Your task to perform on an android device: open sync settings in chrome Image 0: 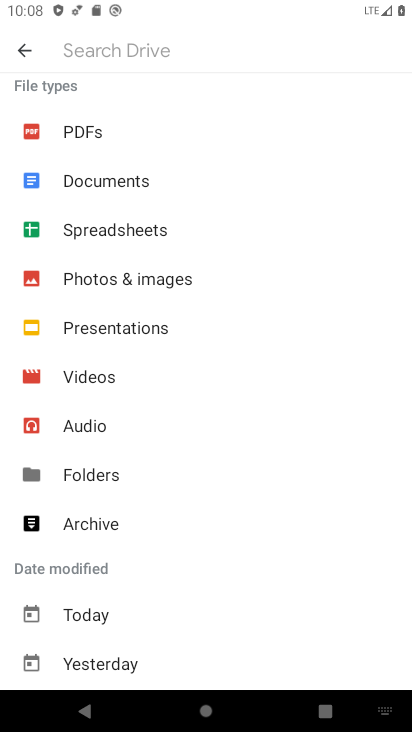
Step 0: press home button
Your task to perform on an android device: open sync settings in chrome Image 1: 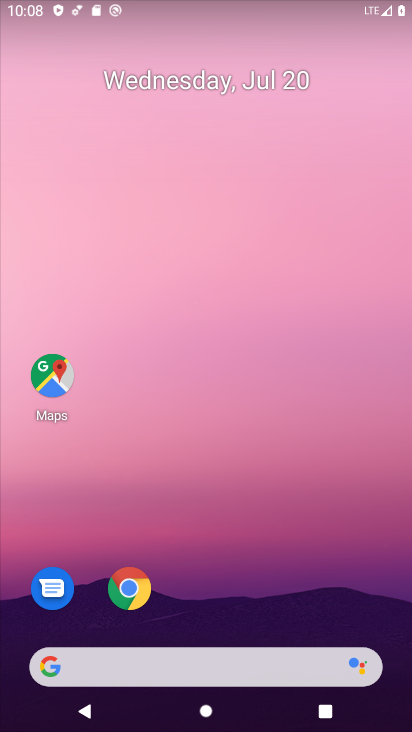
Step 1: drag from (219, 621) to (229, 0)
Your task to perform on an android device: open sync settings in chrome Image 2: 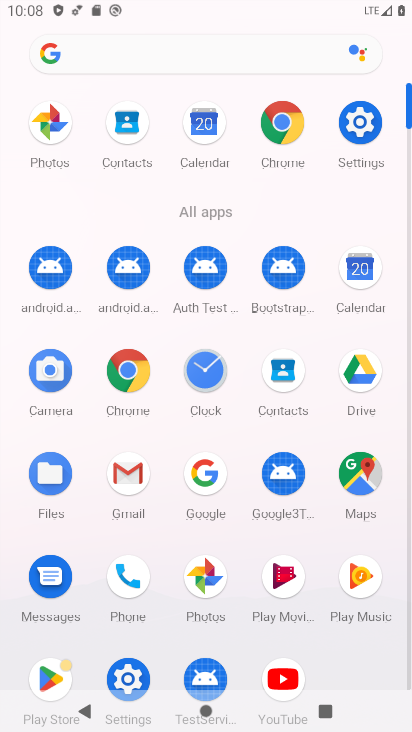
Step 2: click (124, 385)
Your task to perform on an android device: open sync settings in chrome Image 3: 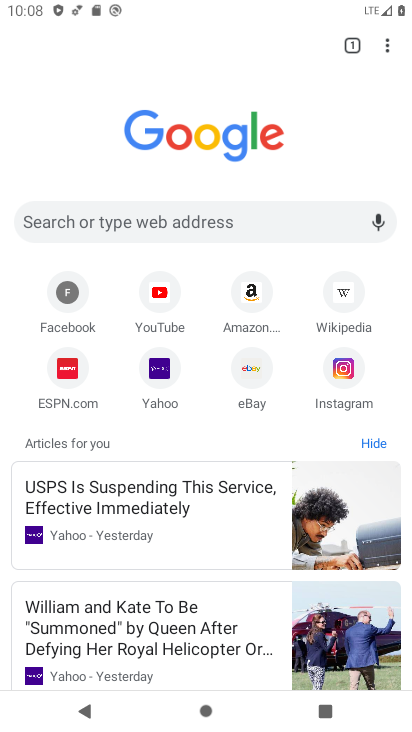
Step 3: click (389, 43)
Your task to perform on an android device: open sync settings in chrome Image 4: 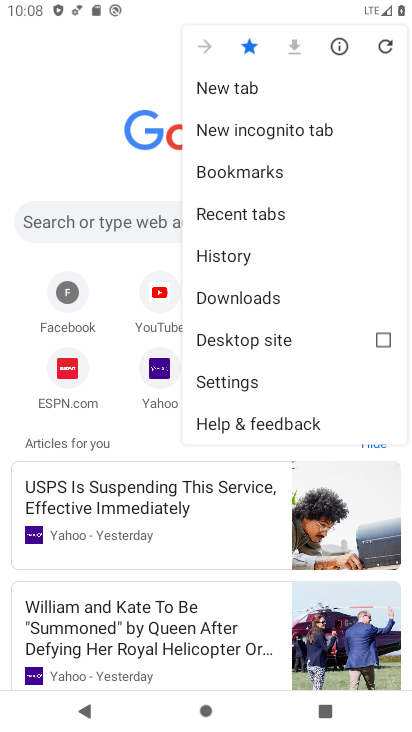
Step 4: click (231, 387)
Your task to perform on an android device: open sync settings in chrome Image 5: 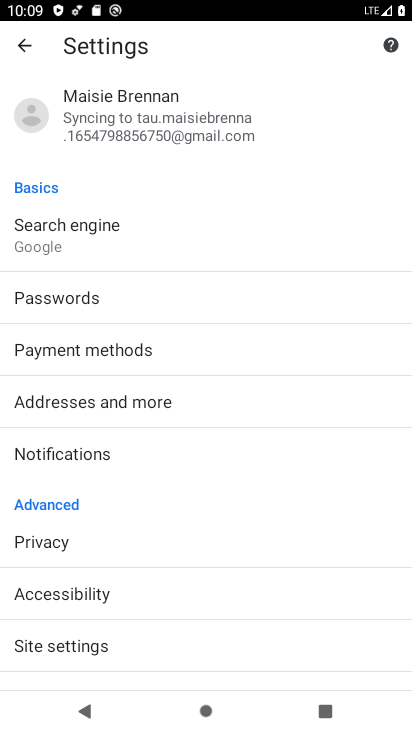
Step 5: click (162, 119)
Your task to perform on an android device: open sync settings in chrome Image 6: 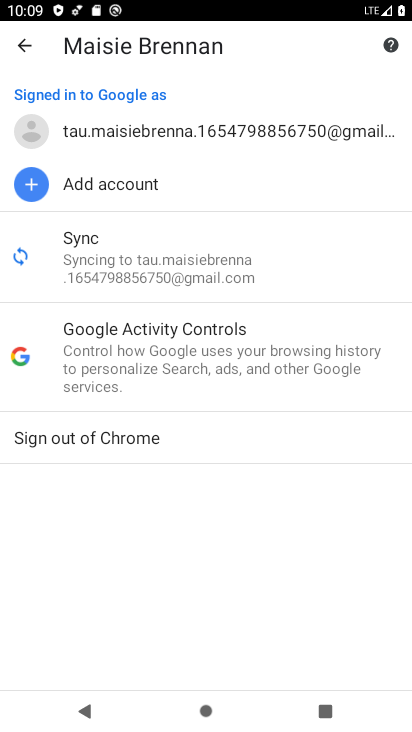
Step 6: click (125, 261)
Your task to perform on an android device: open sync settings in chrome Image 7: 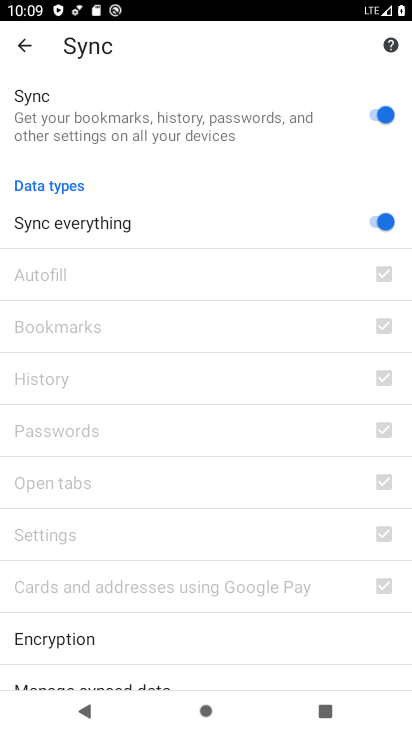
Step 7: task complete